Your task to perform on an android device: open app "LinkedIn" (install if not already installed) Image 0: 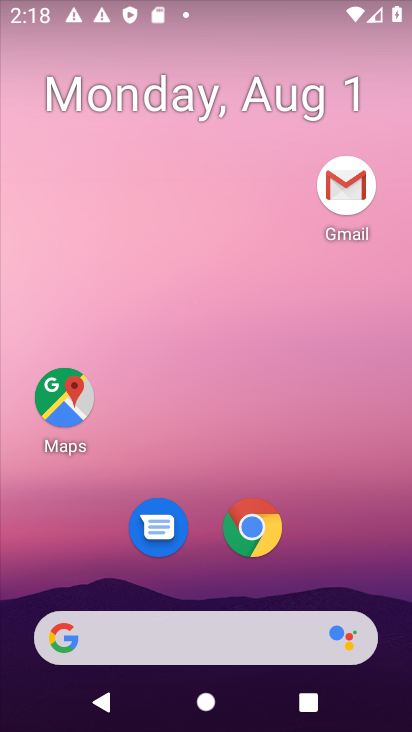
Step 0: drag from (243, 634) to (253, 55)
Your task to perform on an android device: open app "LinkedIn" (install if not already installed) Image 1: 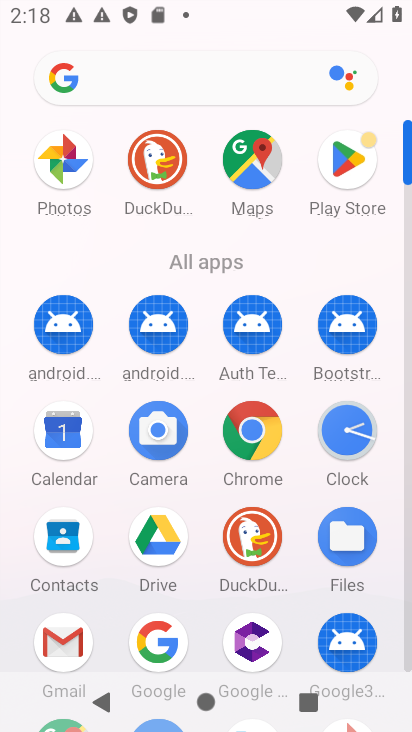
Step 1: drag from (182, 641) to (191, 374)
Your task to perform on an android device: open app "LinkedIn" (install if not already installed) Image 2: 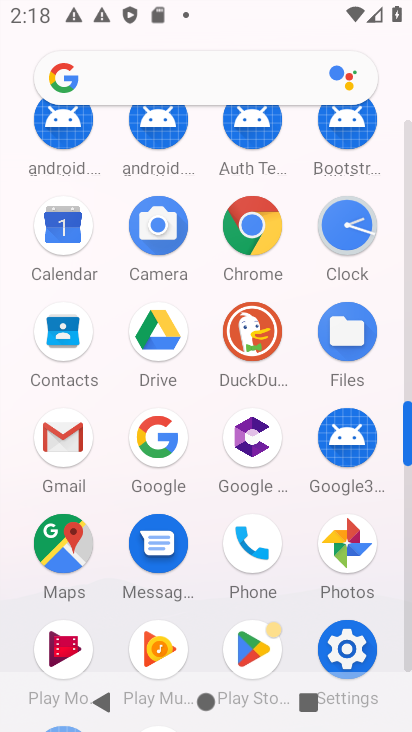
Step 2: click (249, 639)
Your task to perform on an android device: open app "LinkedIn" (install if not already installed) Image 3: 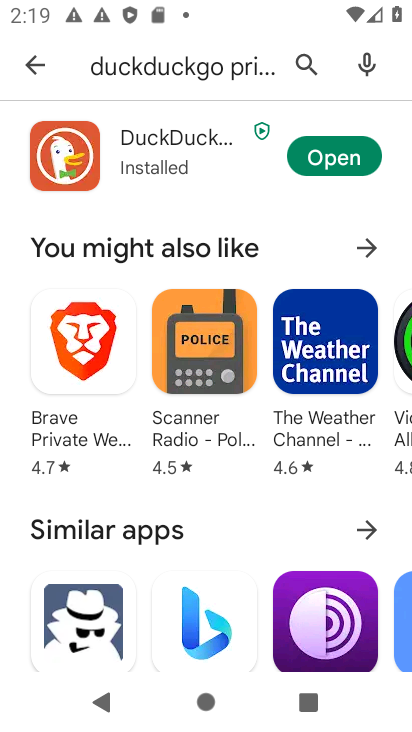
Step 3: click (297, 62)
Your task to perform on an android device: open app "LinkedIn" (install if not already installed) Image 4: 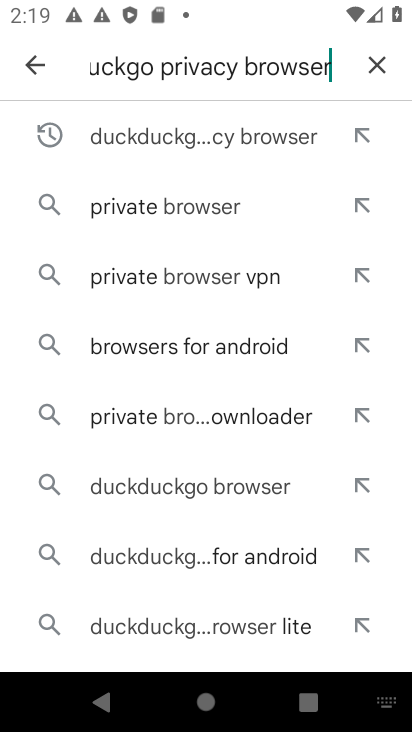
Step 4: click (378, 65)
Your task to perform on an android device: open app "LinkedIn" (install if not already installed) Image 5: 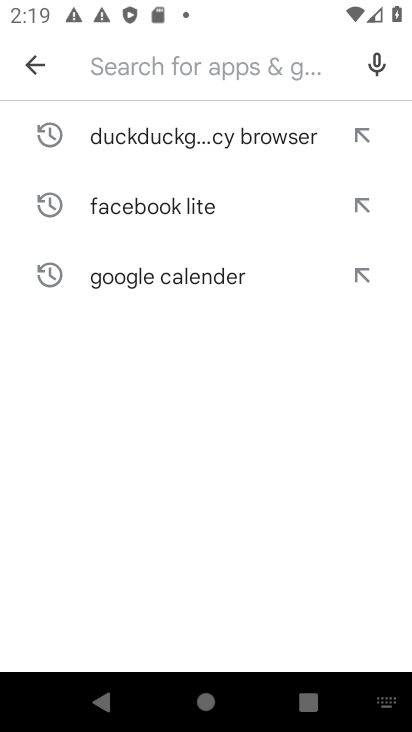
Step 5: type "linkedin"
Your task to perform on an android device: open app "LinkedIn" (install if not already installed) Image 6: 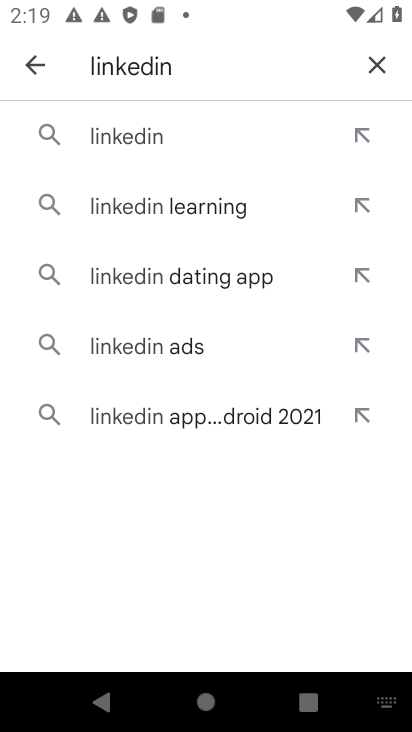
Step 6: click (156, 133)
Your task to perform on an android device: open app "LinkedIn" (install if not already installed) Image 7: 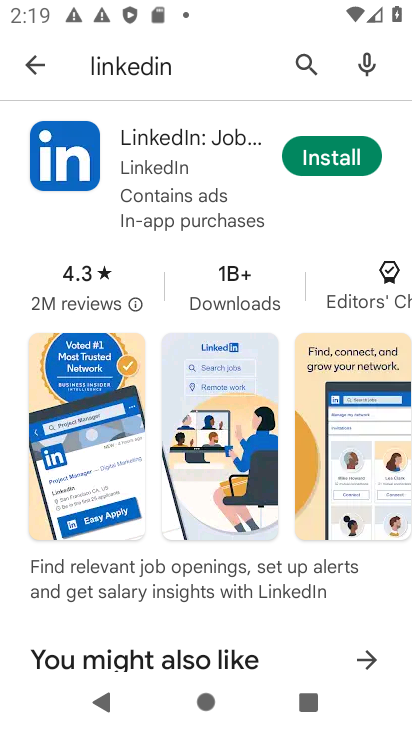
Step 7: click (316, 143)
Your task to perform on an android device: open app "LinkedIn" (install if not already installed) Image 8: 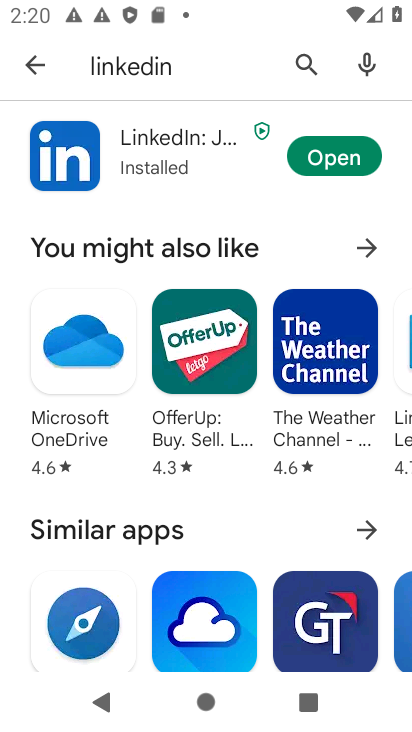
Step 8: task complete